Your task to perform on an android device: Open the Play Movies app and select the watchlist tab. Image 0: 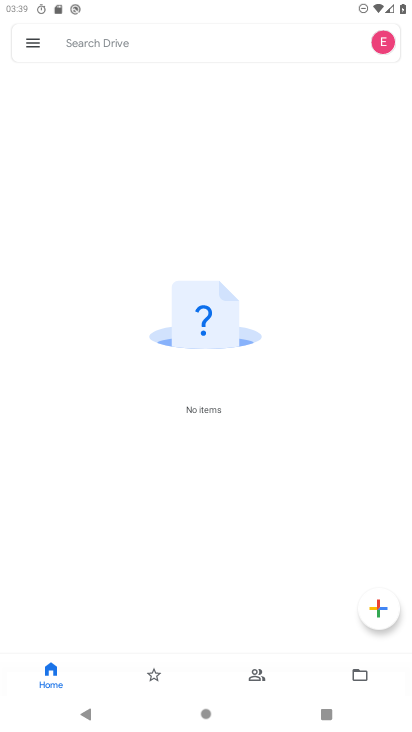
Step 0: press home button
Your task to perform on an android device: Open the Play Movies app and select the watchlist tab. Image 1: 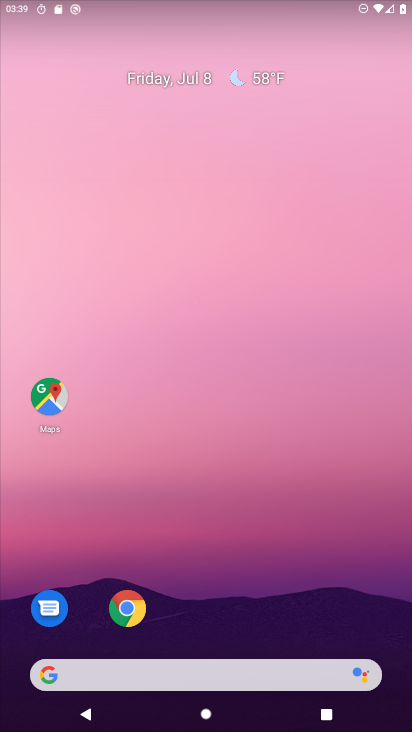
Step 1: drag from (254, 683) to (240, 129)
Your task to perform on an android device: Open the Play Movies app and select the watchlist tab. Image 2: 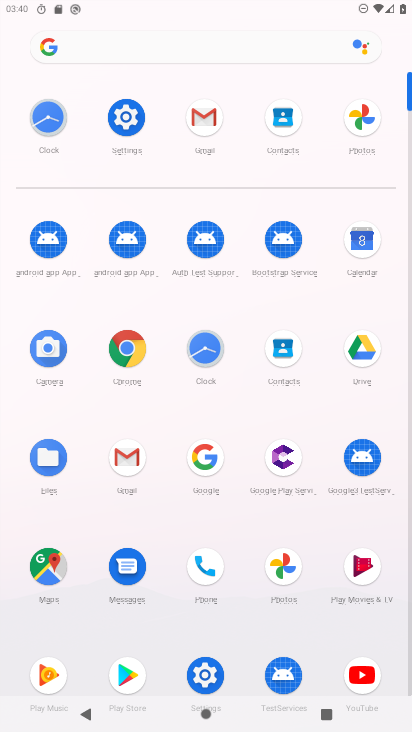
Step 2: click (359, 571)
Your task to perform on an android device: Open the Play Movies app and select the watchlist tab. Image 3: 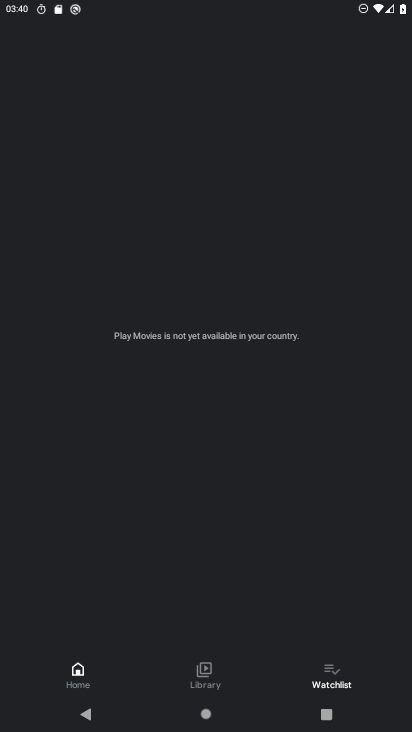
Step 3: task complete